Your task to perform on an android device: delete browsing data in the chrome app Image 0: 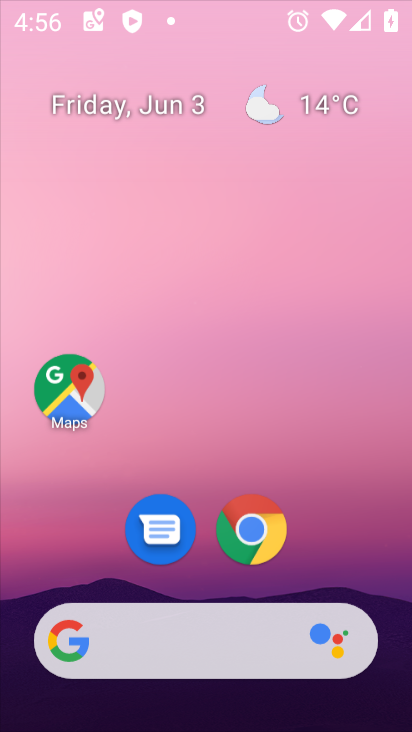
Step 0: press home button
Your task to perform on an android device: delete browsing data in the chrome app Image 1: 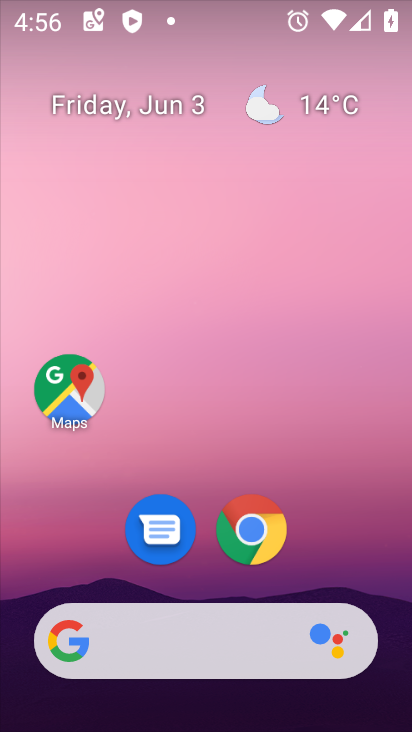
Step 1: click (244, 524)
Your task to perform on an android device: delete browsing data in the chrome app Image 2: 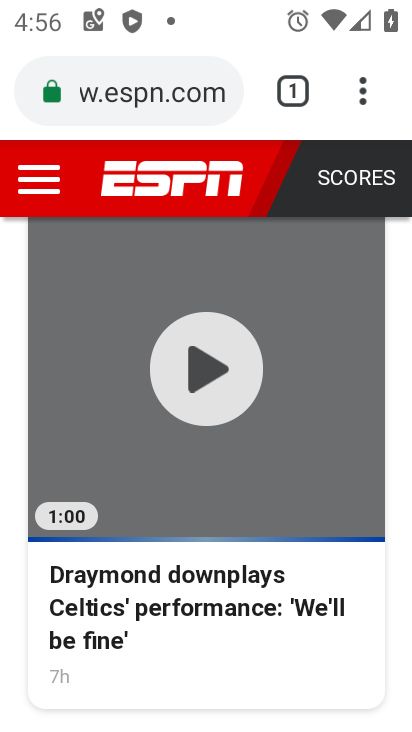
Step 2: click (358, 87)
Your task to perform on an android device: delete browsing data in the chrome app Image 3: 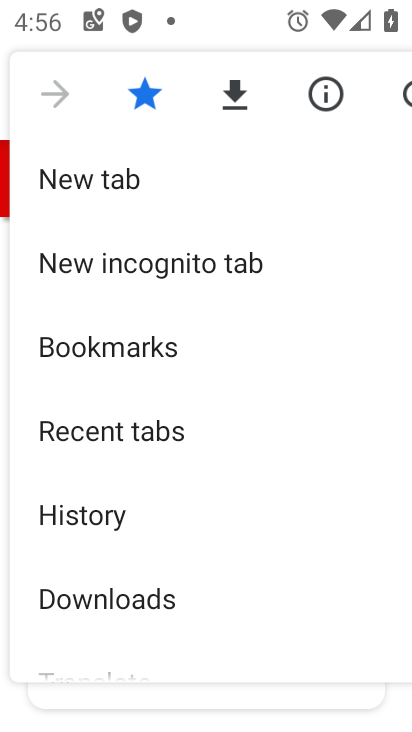
Step 3: click (143, 509)
Your task to perform on an android device: delete browsing data in the chrome app Image 4: 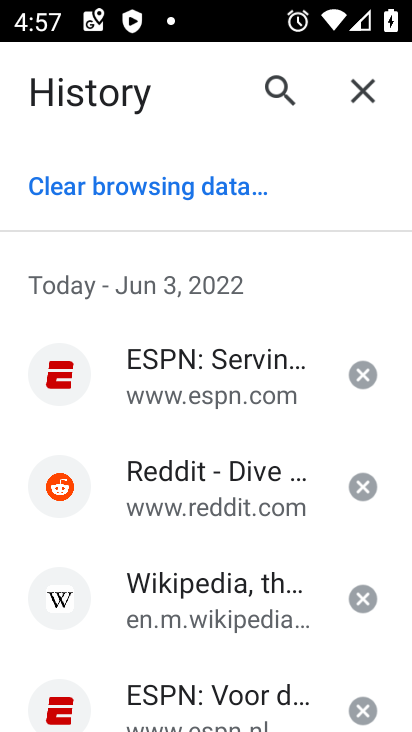
Step 4: click (148, 183)
Your task to perform on an android device: delete browsing data in the chrome app Image 5: 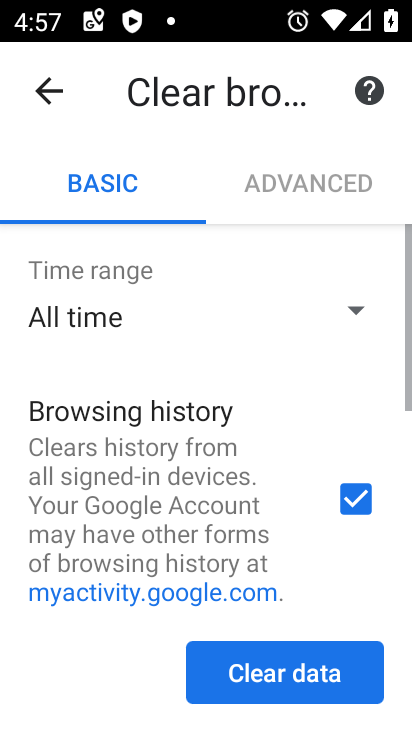
Step 5: drag from (250, 574) to (271, 178)
Your task to perform on an android device: delete browsing data in the chrome app Image 6: 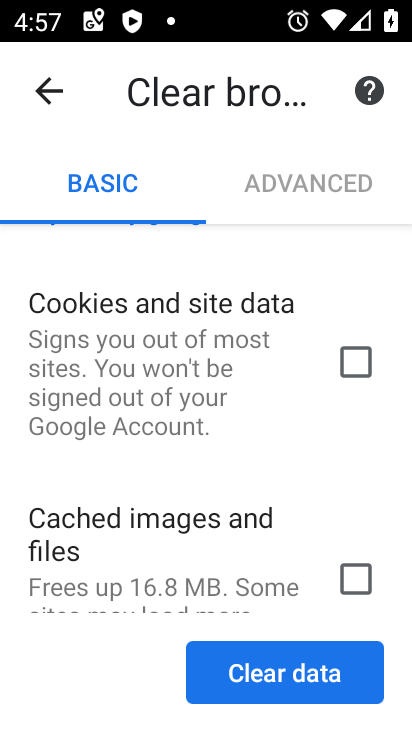
Step 6: click (355, 355)
Your task to perform on an android device: delete browsing data in the chrome app Image 7: 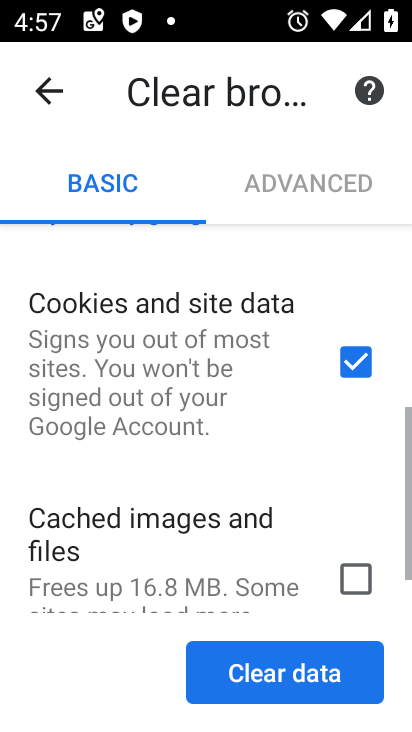
Step 7: click (356, 582)
Your task to perform on an android device: delete browsing data in the chrome app Image 8: 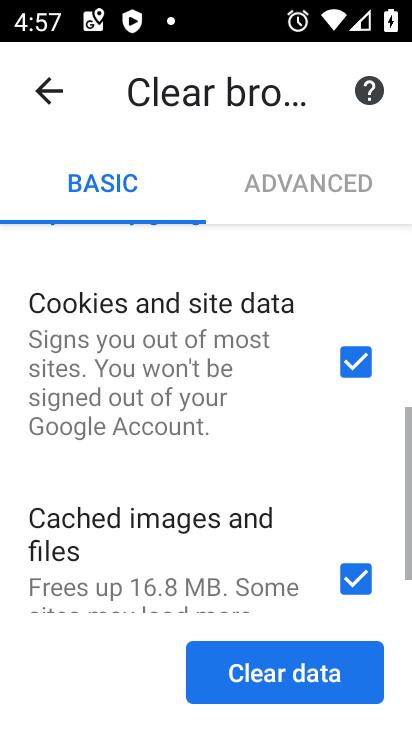
Step 8: click (291, 670)
Your task to perform on an android device: delete browsing data in the chrome app Image 9: 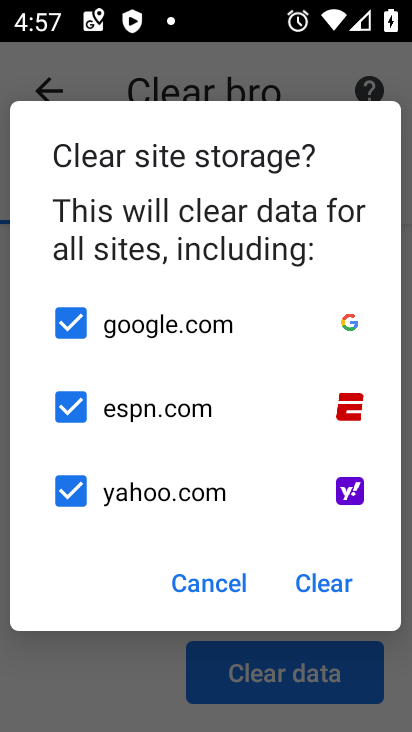
Step 9: click (309, 582)
Your task to perform on an android device: delete browsing data in the chrome app Image 10: 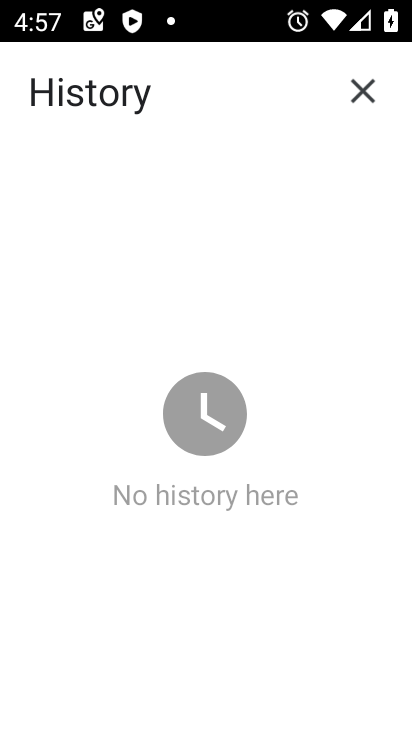
Step 10: task complete